Your task to perform on an android device: turn pop-ups on in chrome Image 0: 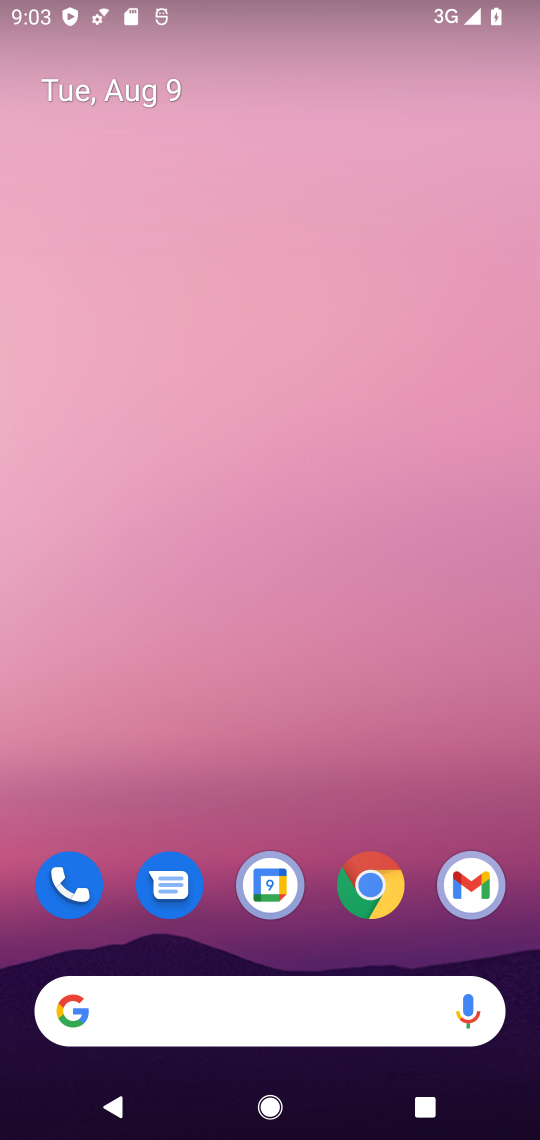
Step 0: press home button
Your task to perform on an android device: turn pop-ups on in chrome Image 1: 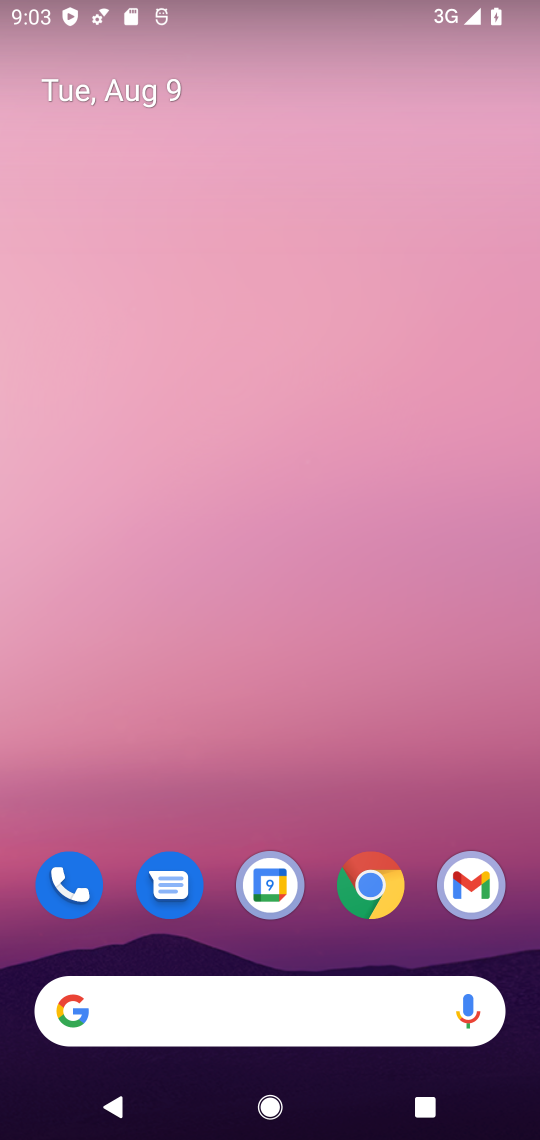
Step 1: click (361, 873)
Your task to perform on an android device: turn pop-ups on in chrome Image 2: 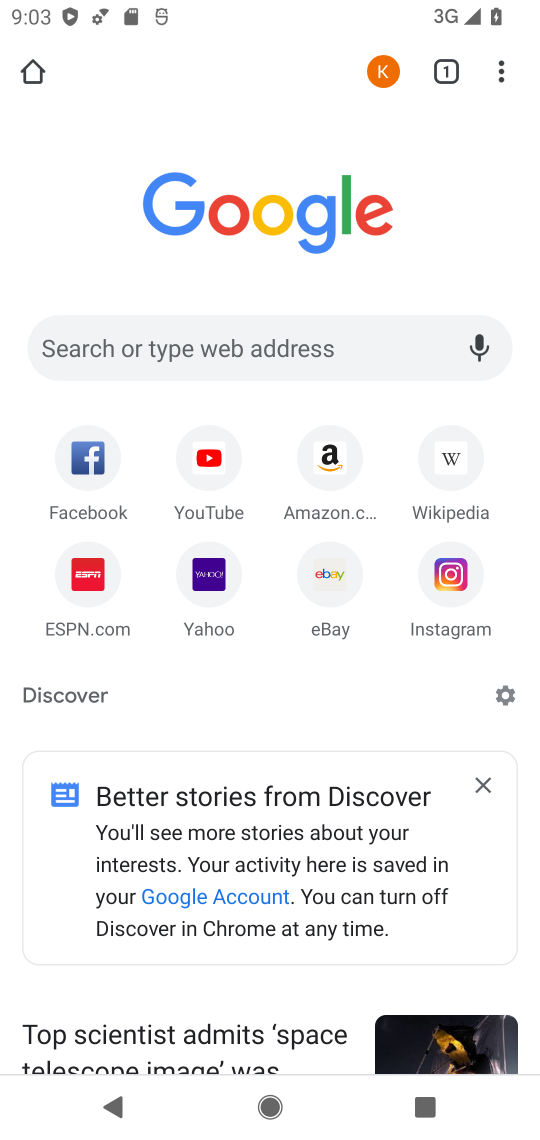
Step 2: click (500, 66)
Your task to perform on an android device: turn pop-ups on in chrome Image 3: 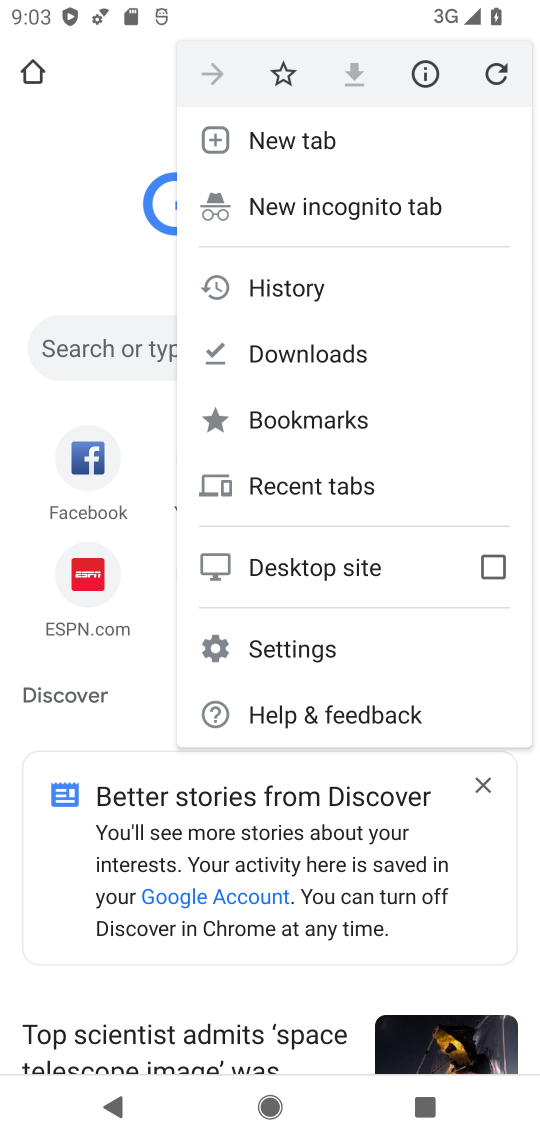
Step 3: click (345, 641)
Your task to perform on an android device: turn pop-ups on in chrome Image 4: 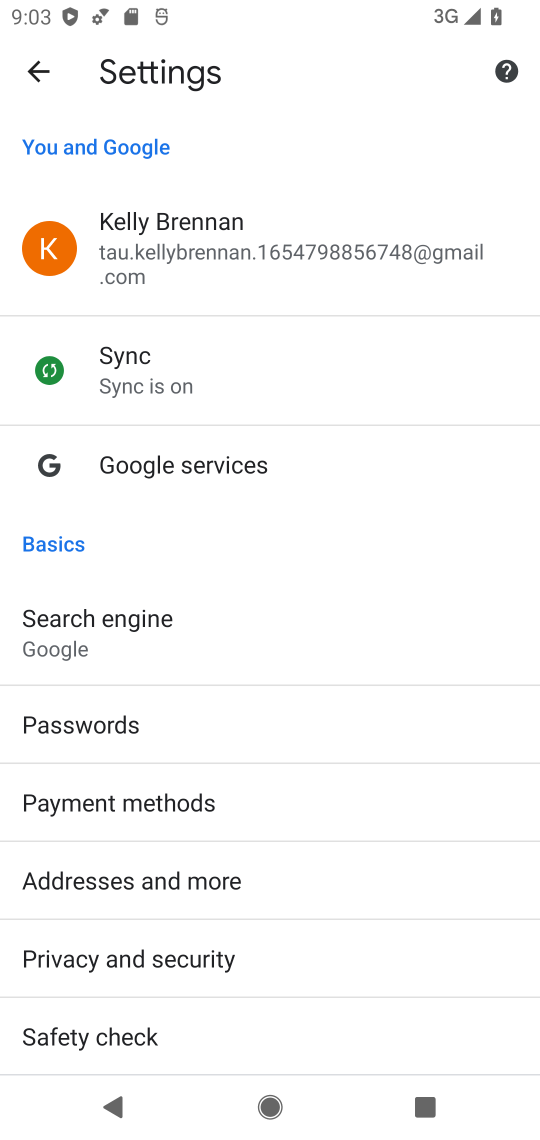
Step 4: drag from (281, 994) to (301, 260)
Your task to perform on an android device: turn pop-ups on in chrome Image 5: 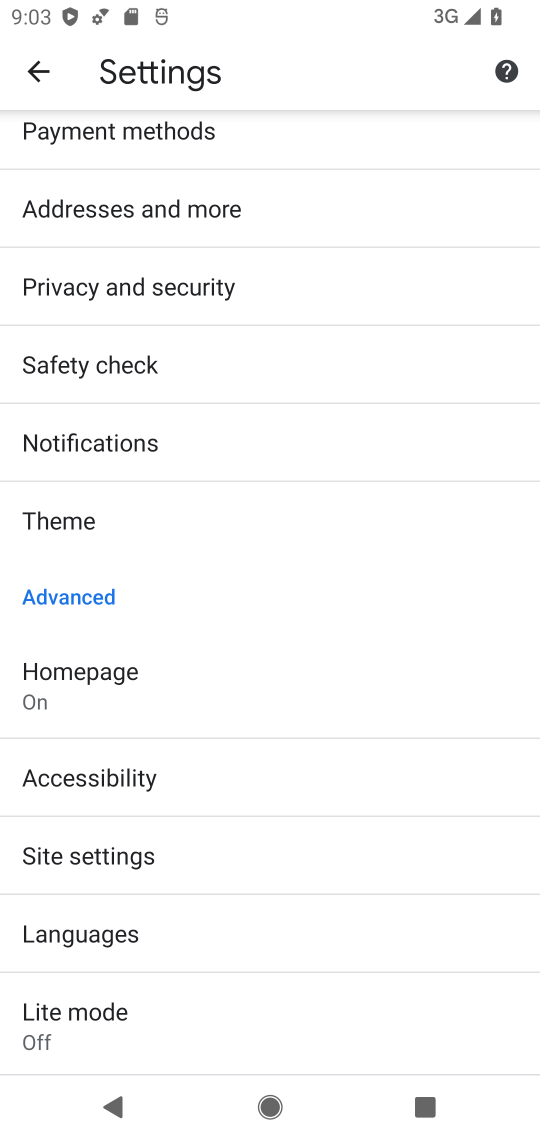
Step 5: click (163, 852)
Your task to perform on an android device: turn pop-ups on in chrome Image 6: 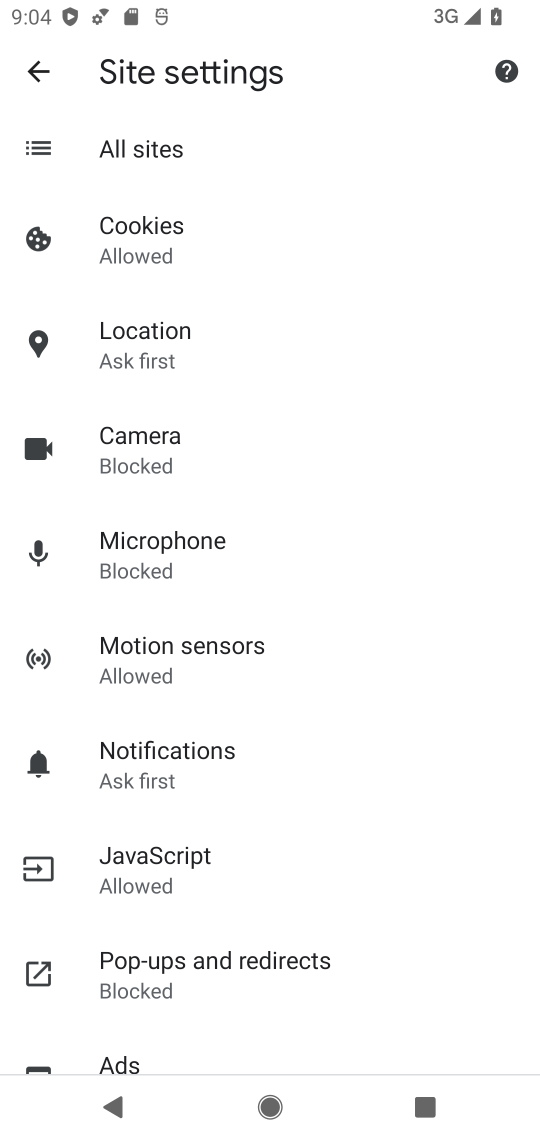
Step 6: click (207, 971)
Your task to perform on an android device: turn pop-ups on in chrome Image 7: 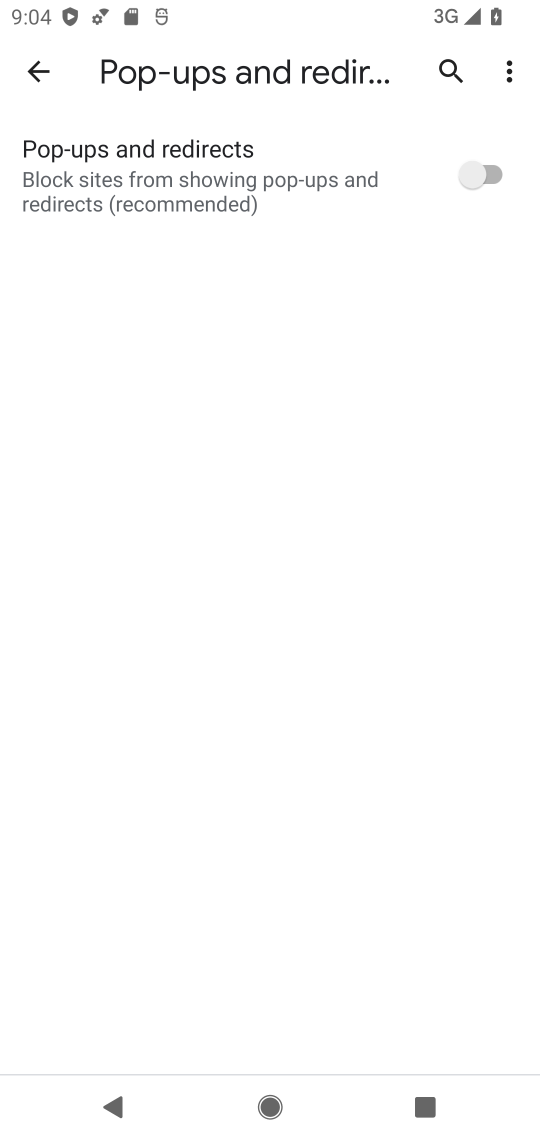
Step 7: click (492, 171)
Your task to perform on an android device: turn pop-ups on in chrome Image 8: 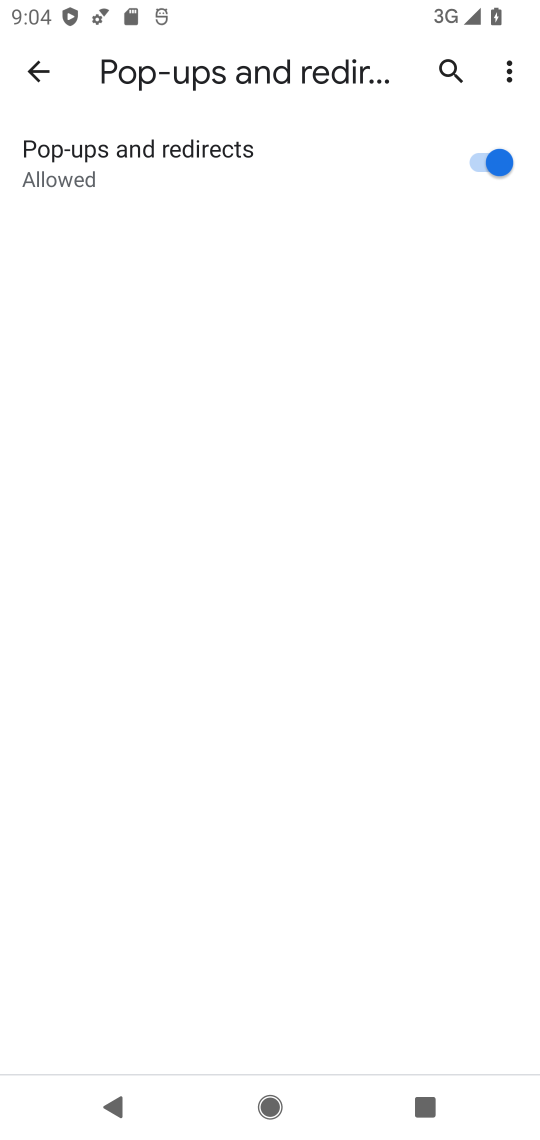
Step 8: task complete